Your task to perform on an android device: What's the weather going to be tomorrow? Image 0: 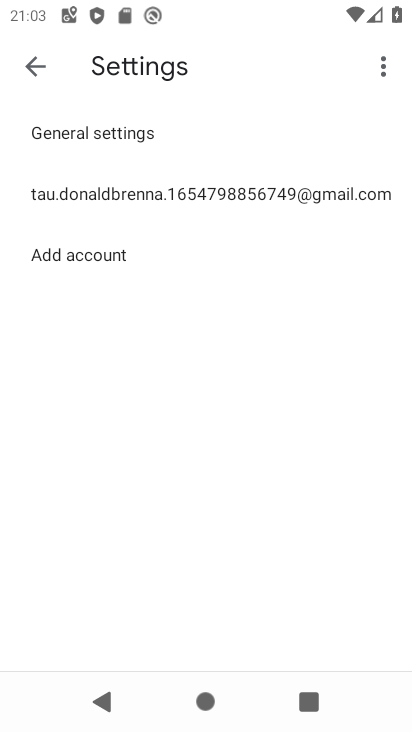
Step 0: press home button
Your task to perform on an android device: What's the weather going to be tomorrow? Image 1: 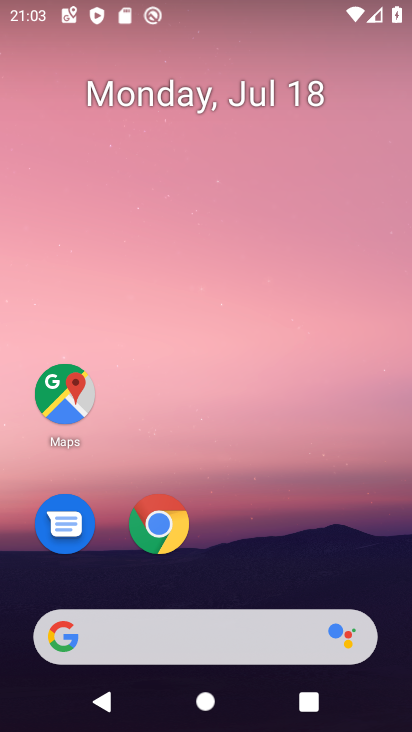
Step 1: click (259, 657)
Your task to perform on an android device: What's the weather going to be tomorrow? Image 2: 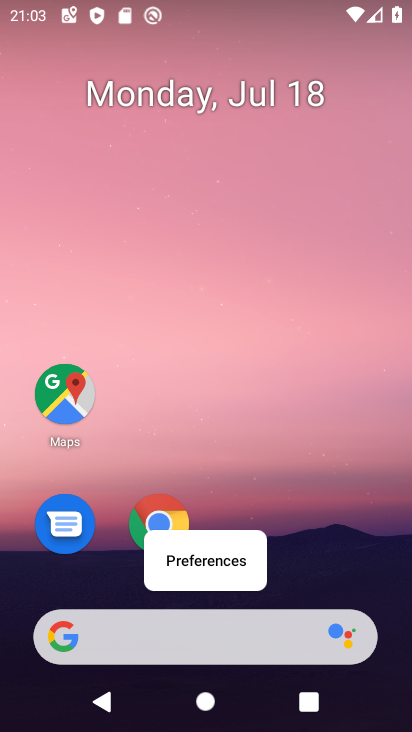
Step 2: click (152, 637)
Your task to perform on an android device: What's the weather going to be tomorrow? Image 3: 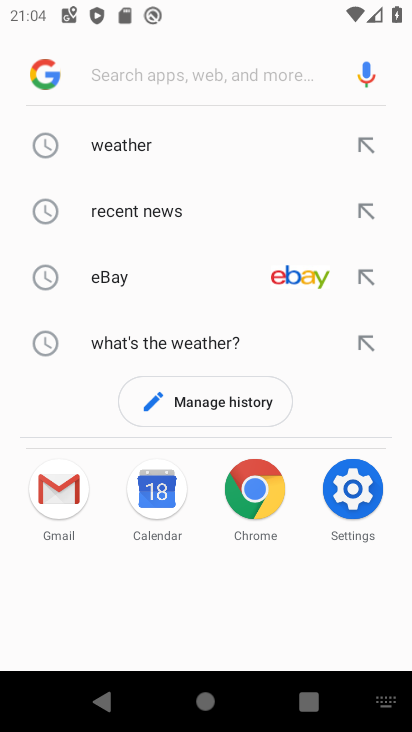
Step 3: click (141, 139)
Your task to perform on an android device: What's the weather going to be tomorrow? Image 4: 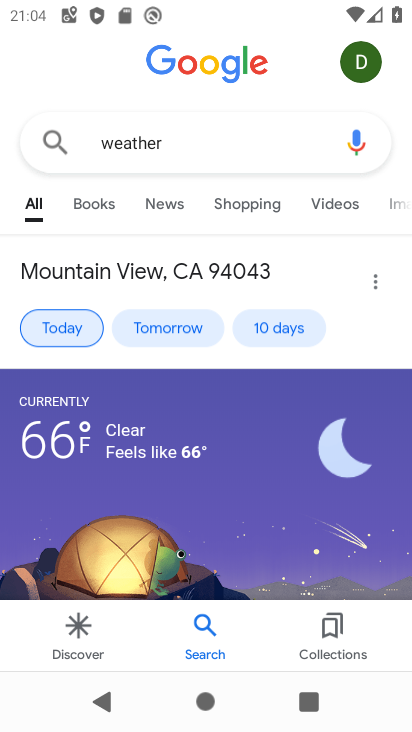
Step 4: click (84, 322)
Your task to perform on an android device: What's the weather going to be tomorrow? Image 5: 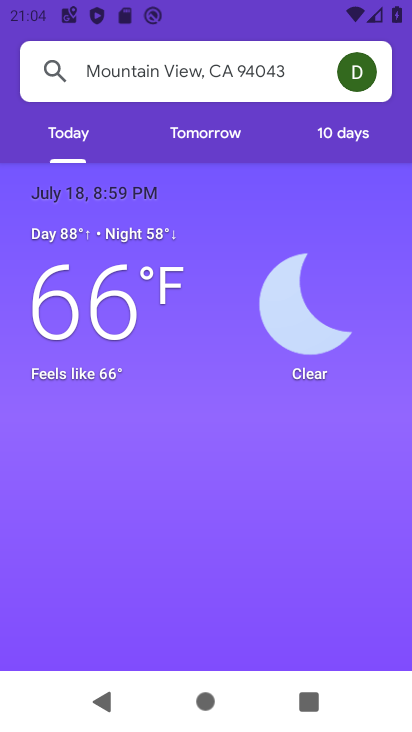
Step 5: click (224, 130)
Your task to perform on an android device: What's the weather going to be tomorrow? Image 6: 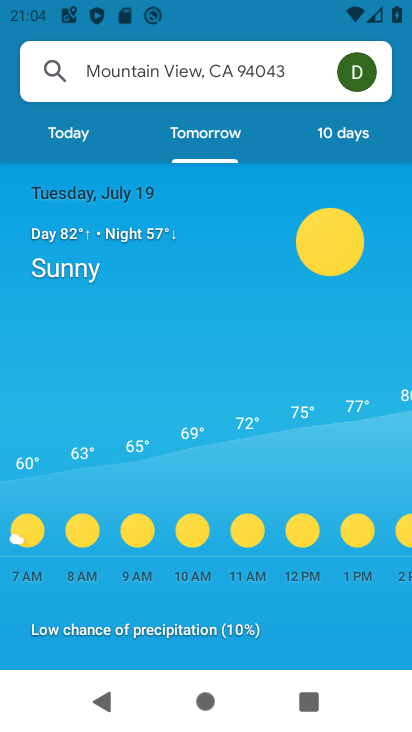
Step 6: task complete